Your task to perform on an android device: Open wifi settings Image 0: 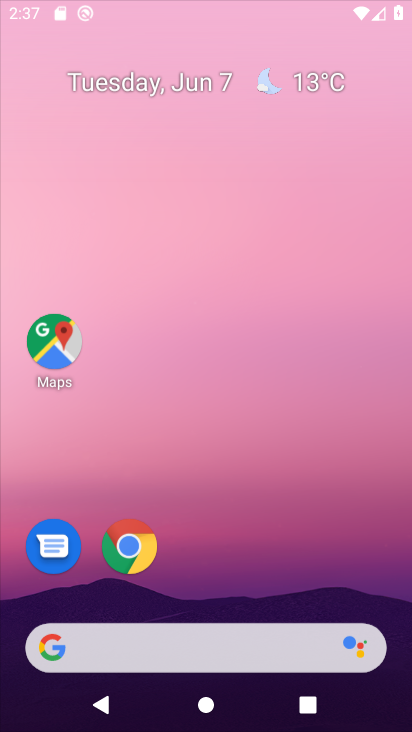
Step 0: click (325, 235)
Your task to perform on an android device: Open wifi settings Image 1: 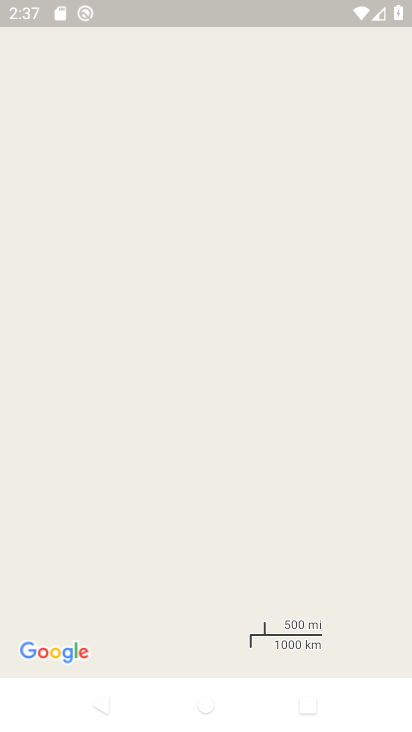
Step 1: press home button
Your task to perform on an android device: Open wifi settings Image 2: 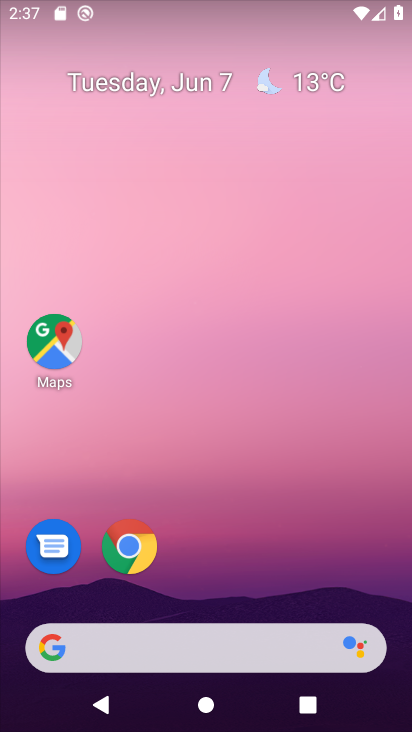
Step 2: drag from (320, 577) to (302, 163)
Your task to perform on an android device: Open wifi settings Image 3: 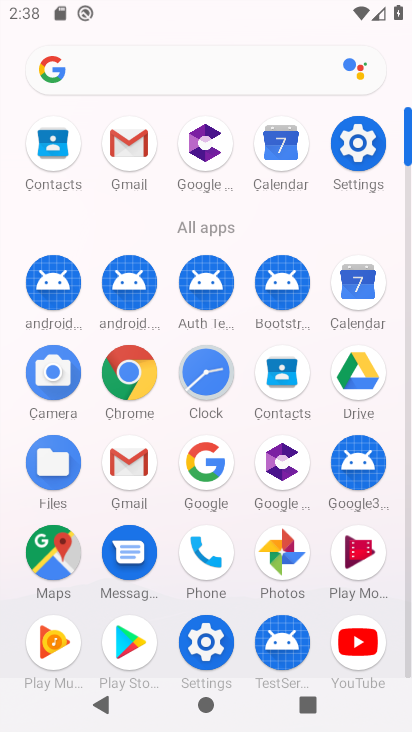
Step 3: click (358, 146)
Your task to perform on an android device: Open wifi settings Image 4: 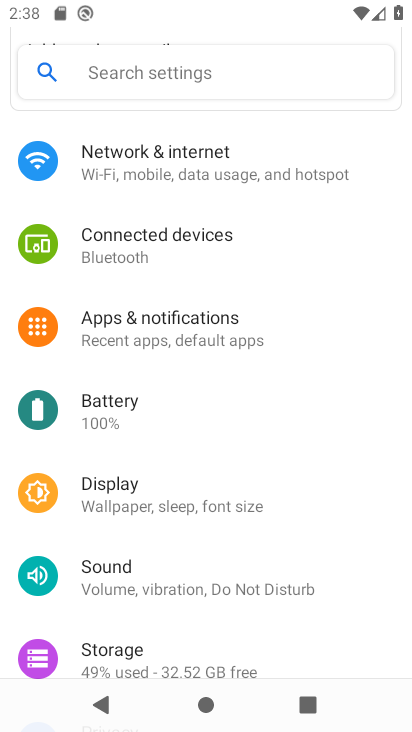
Step 4: drag from (327, 560) to (357, 292)
Your task to perform on an android device: Open wifi settings Image 5: 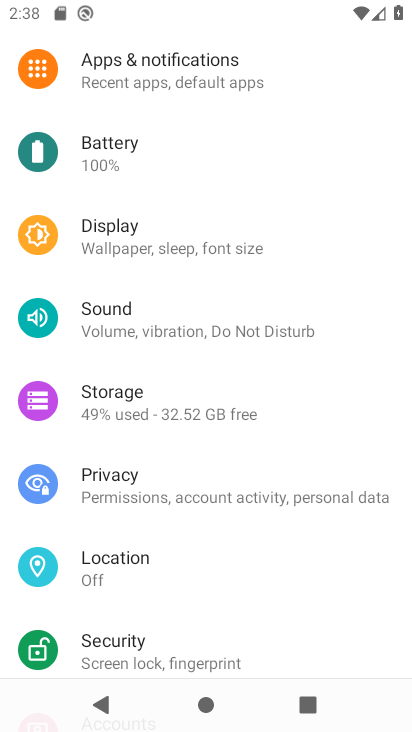
Step 5: drag from (336, 579) to (336, 330)
Your task to perform on an android device: Open wifi settings Image 6: 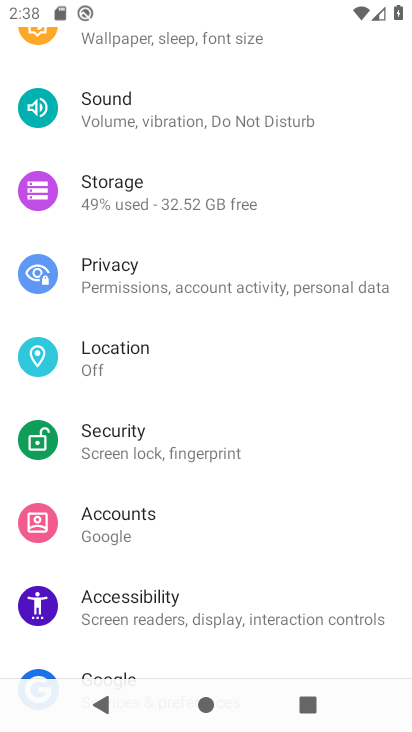
Step 6: drag from (323, 548) to (335, 311)
Your task to perform on an android device: Open wifi settings Image 7: 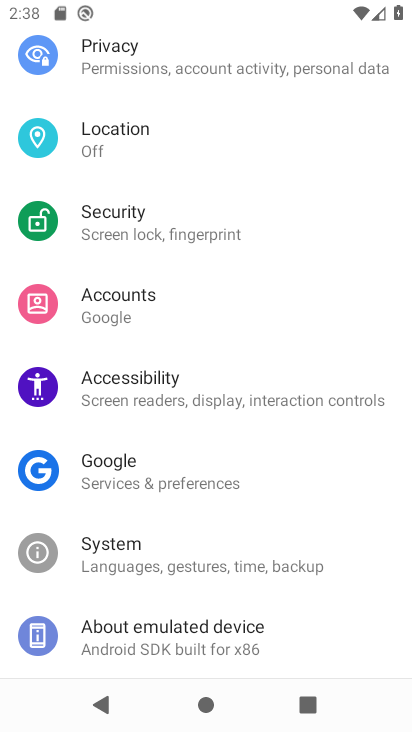
Step 7: drag from (318, 258) to (319, 477)
Your task to perform on an android device: Open wifi settings Image 8: 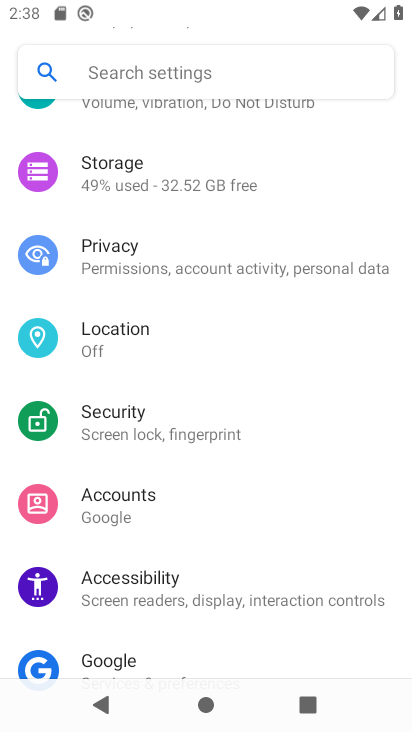
Step 8: drag from (315, 236) to (314, 404)
Your task to perform on an android device: Open wifi settings Image 9: 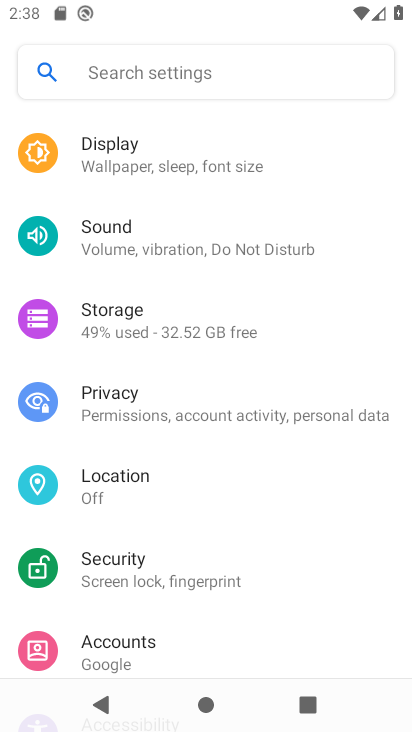
Step 9: drag from (325, 321) to (330, 450)
Your task to perform on an android device: Open wifi settings Image 10: 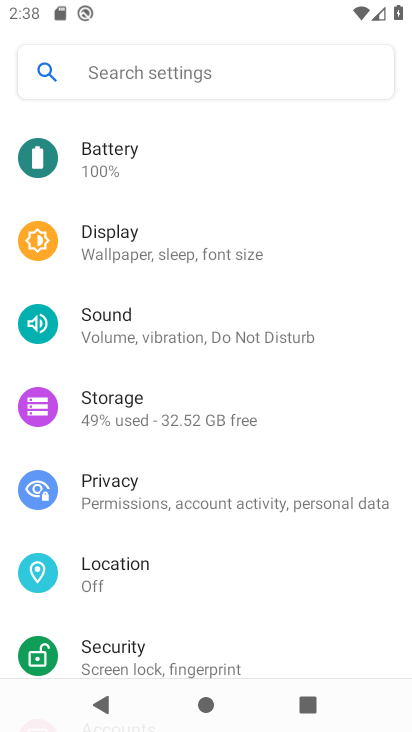
Step 10: drag from (318, 257) to (316, 419)
Your task to perform on an android device: Open wifi settings Image 11: 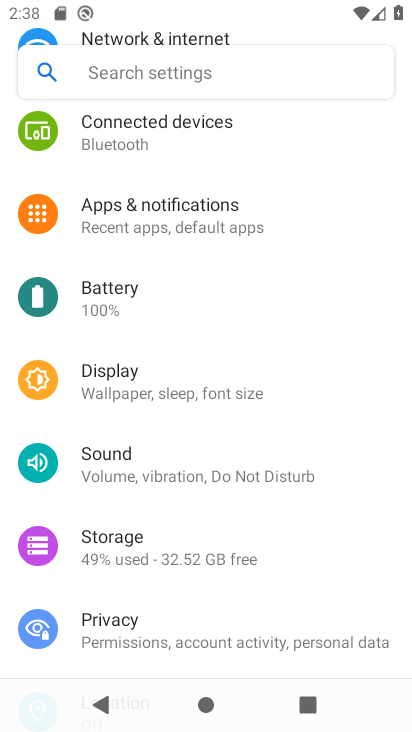
Step 11: drag from (299, 204) to (322, 348)
Your task to perform on an android device: Open wifi settings Image 12: 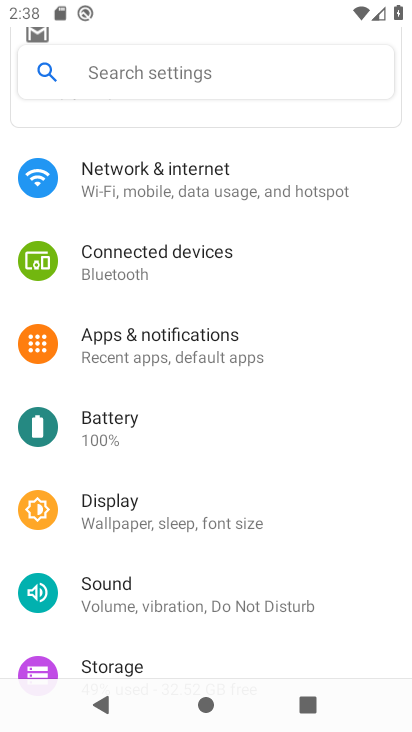
Step 12: drag from (330, 265) to (337, 389)
Your task to perform on an android device: Open wifi settings Image 13: 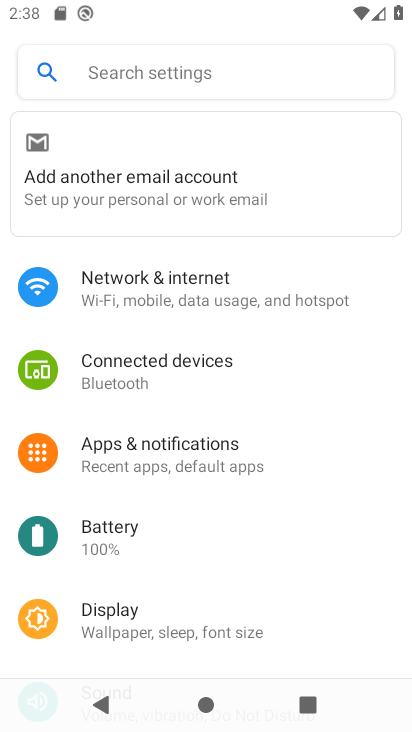
Step 13: click (183, 299)
Your task to perform on an android device: Open wifi settings Image 14: 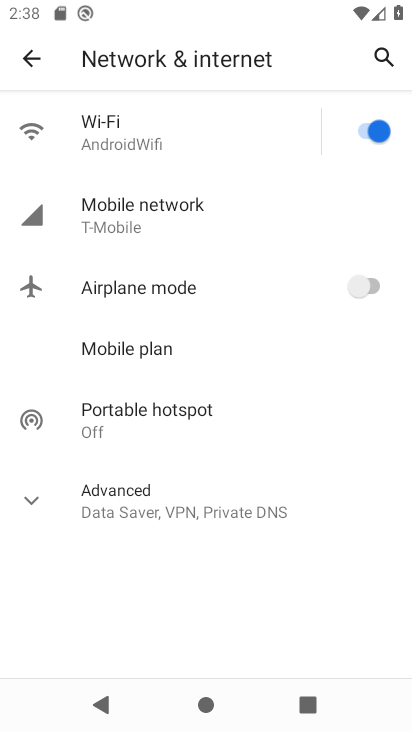
Step 14: click (91, 137)
Your task to perform on an android device: Open wifi settings Image 15: 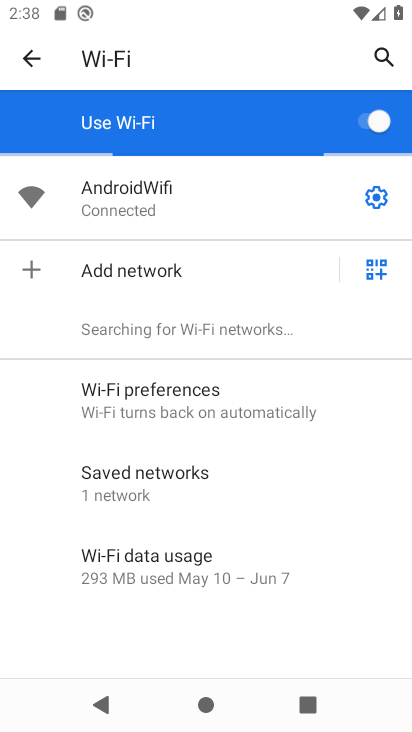
Step 15: task complete